Your task to perform on an android device: Go to notification settings Image 0: 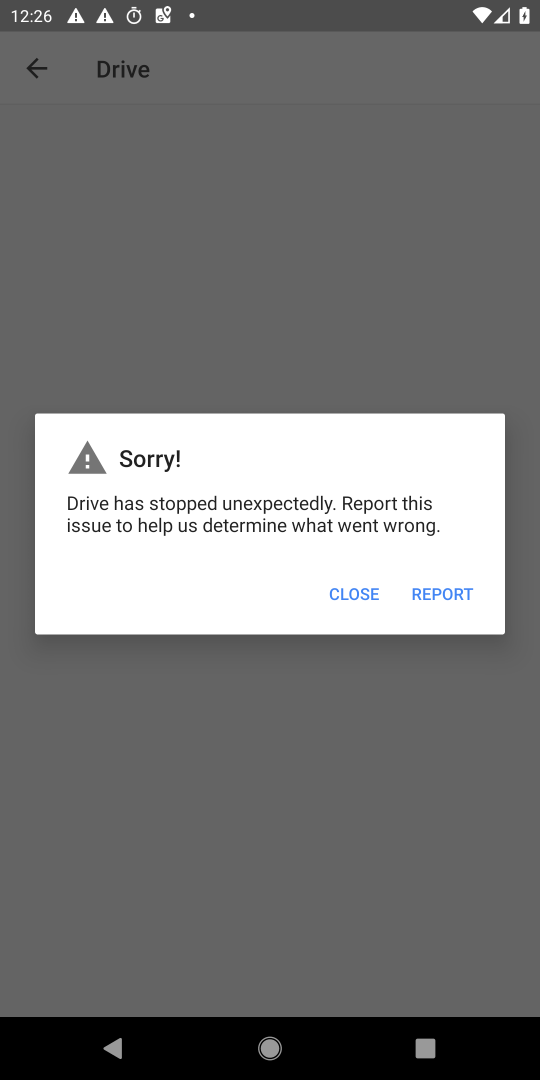
Step 0: press home button
Your task to perform on an android device: Go to notification settings Image 1: 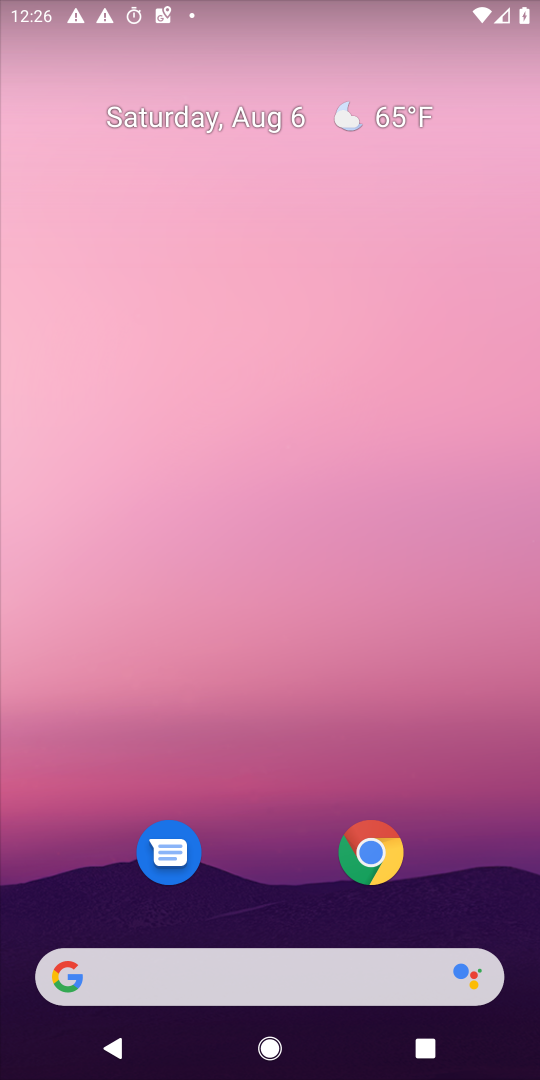
Step 1: drag from (344, 1019) to (277, 372)
Your task to perform on an android device: Go to notification settings Image 2: 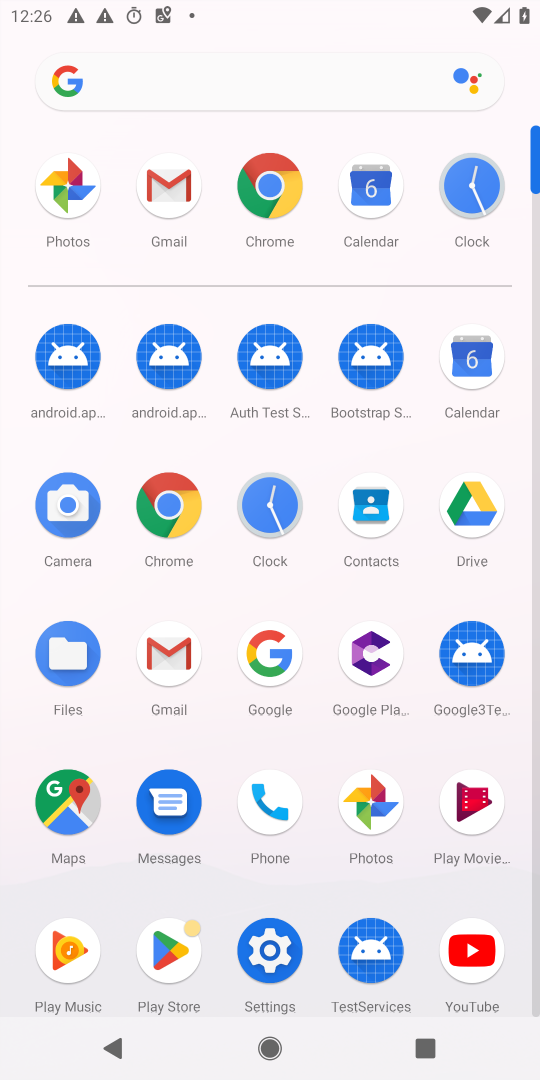
Step 2: click (270, 945)
Your task to perform on an android device: Go to notification settings Image 3: 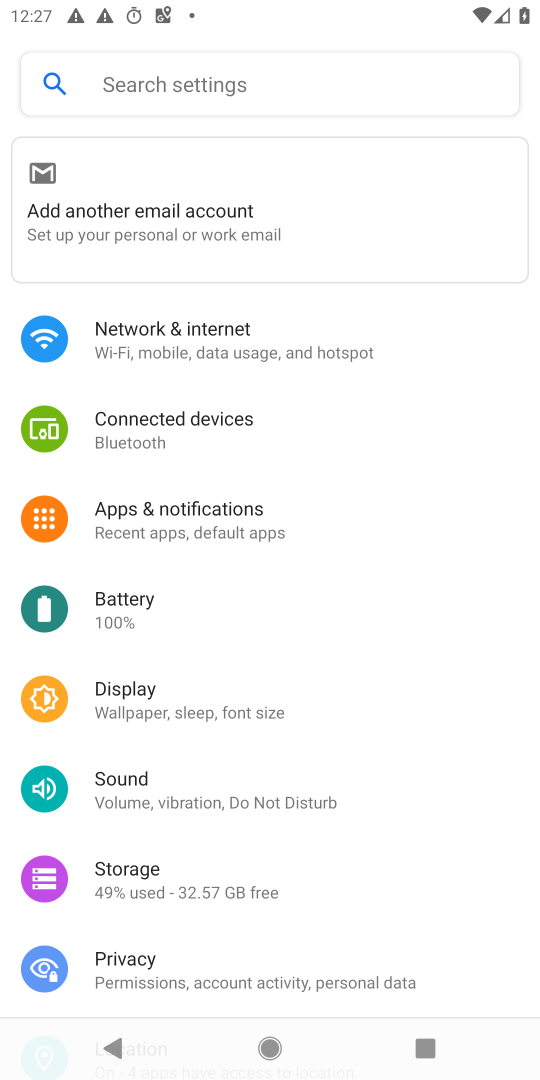
Step 3: click (160, 76)
Your task to perform on an android device: Go to notification settings Image 4: 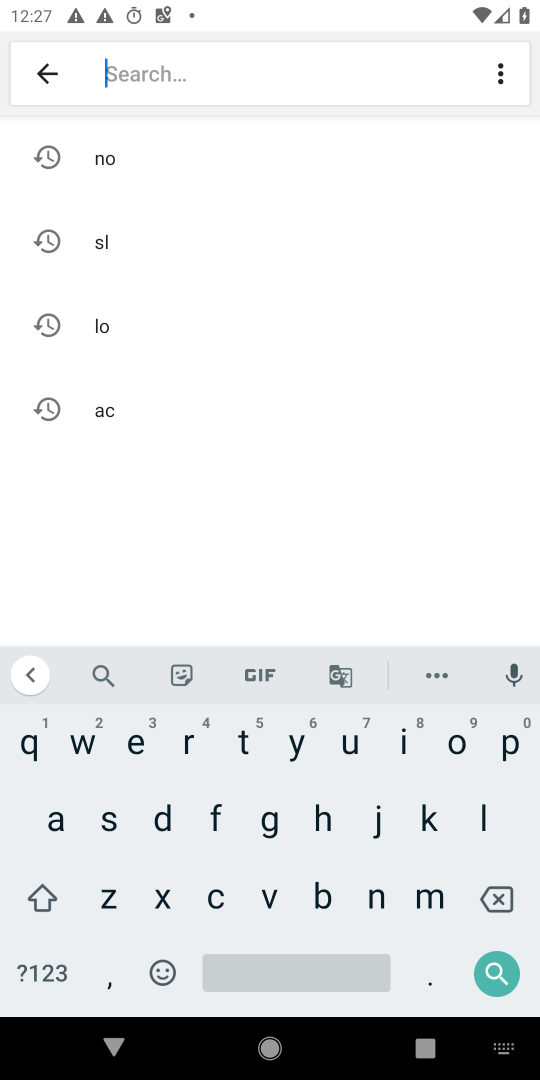
Step 4: click (153, 169)
Your task to perform on an android device: Go to notification settings Image 5: 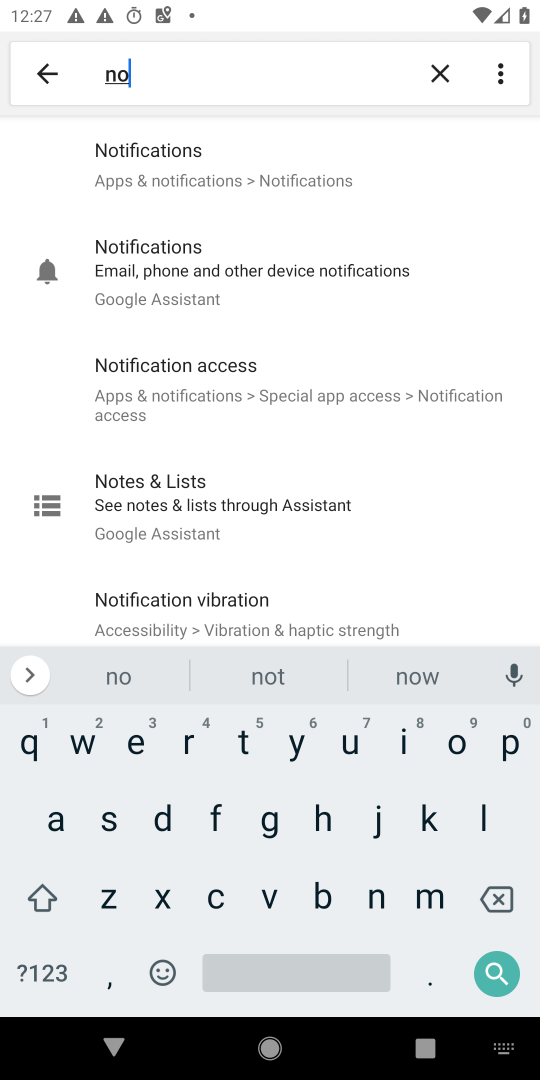
Step 5: click (153, 169)
Your task to perform on an android device: Go to notification settings Image 6: 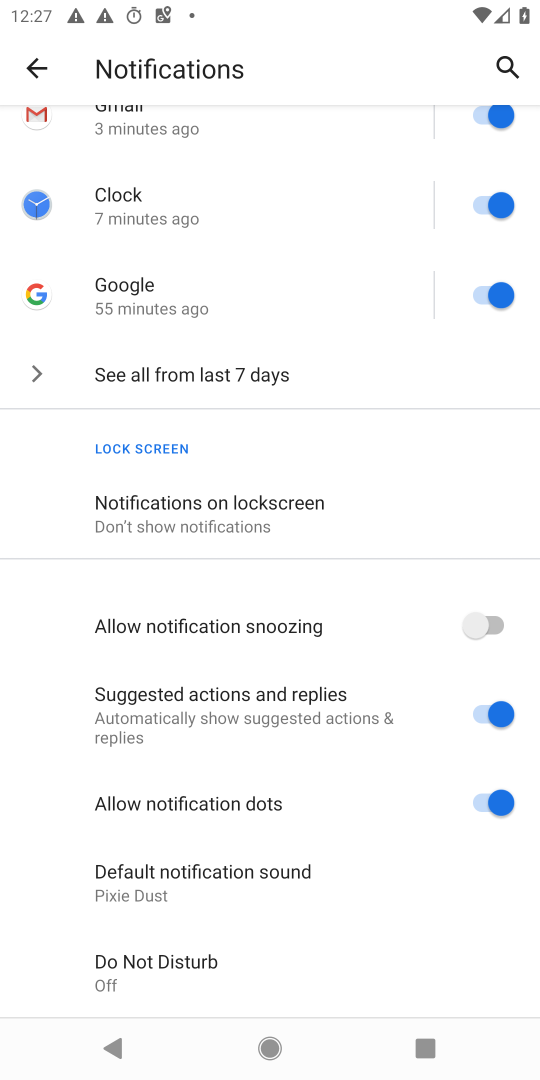
Step 6: click (134, 521)
Your task to perform on an android device: Go to notification settings Image 7: 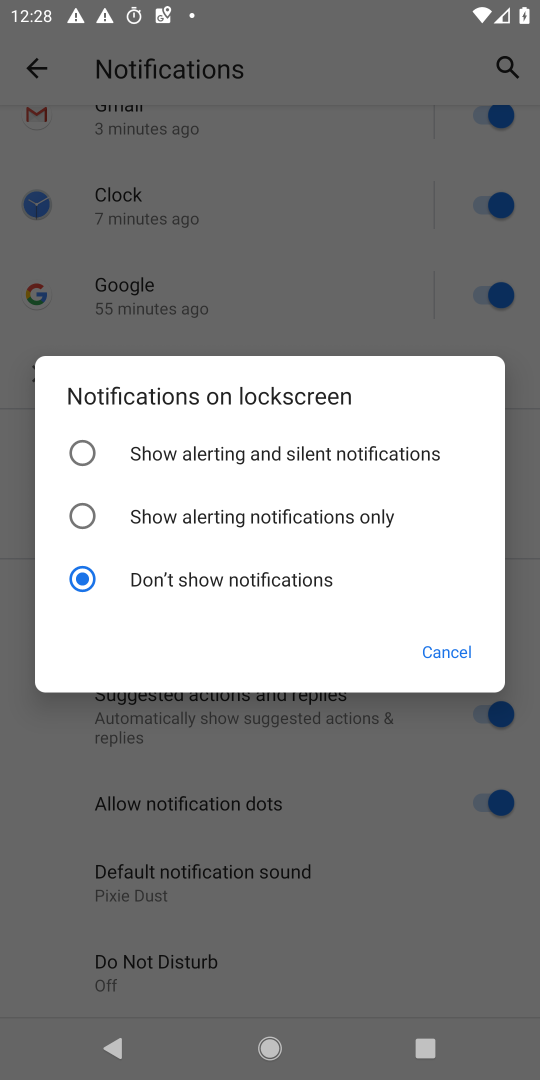
Step 7: task complete